Your task to perform on an android device: open app "LinkedIn" Image 0: 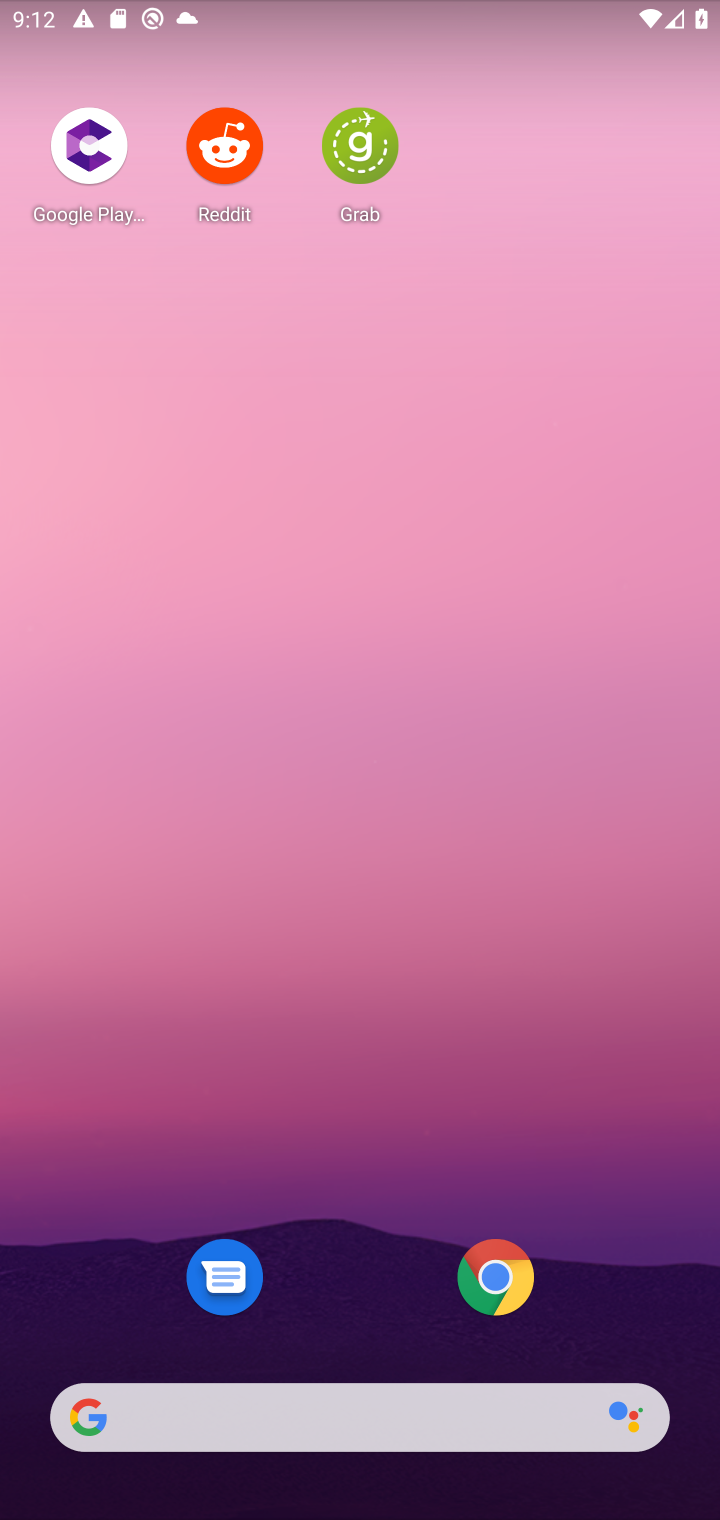
Step 0: drag from (409, 1485) to (365, 146)
Your task to perform on an android device: open app "LinkedIn" Image 1: 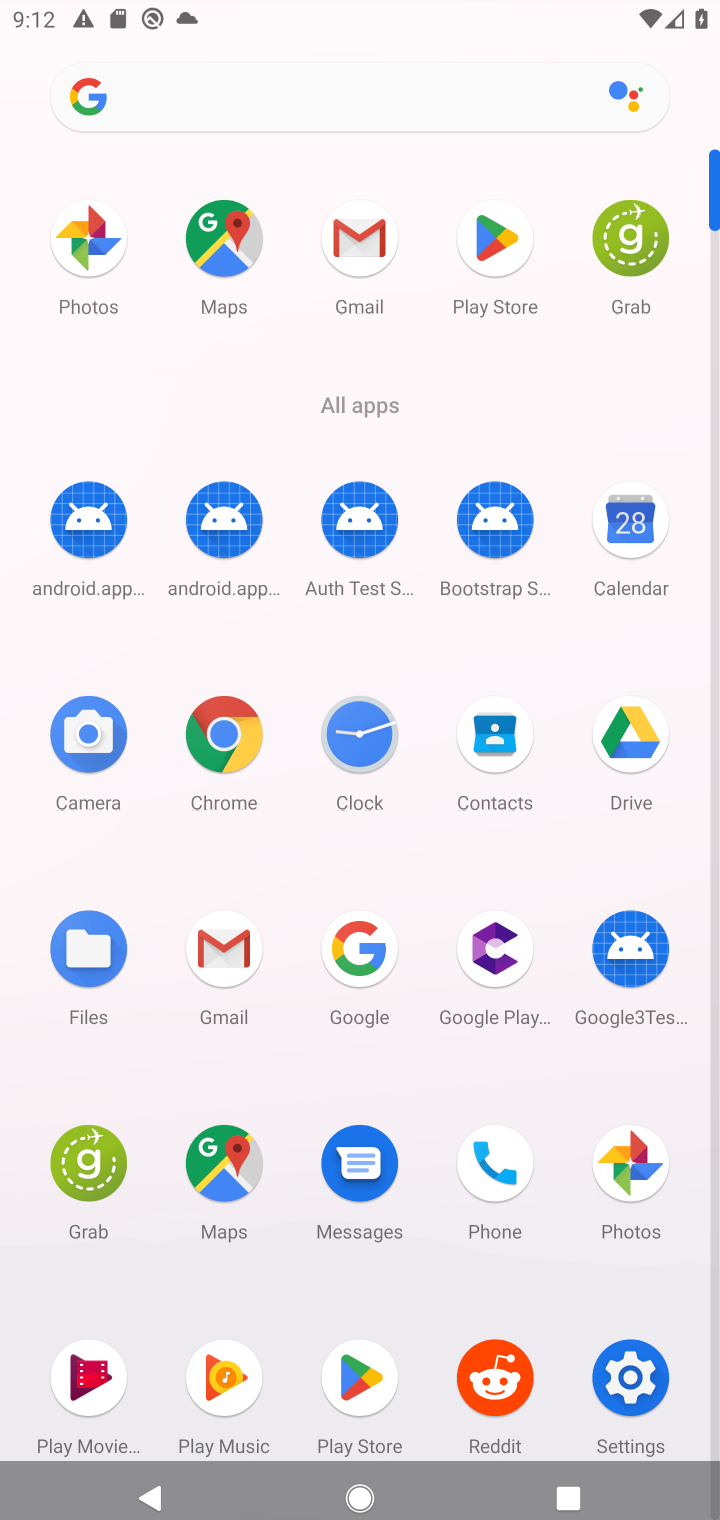
Step 1: click (350, 1377)
Your task to perform on an android device: open app "LinkedIn" Image 2: 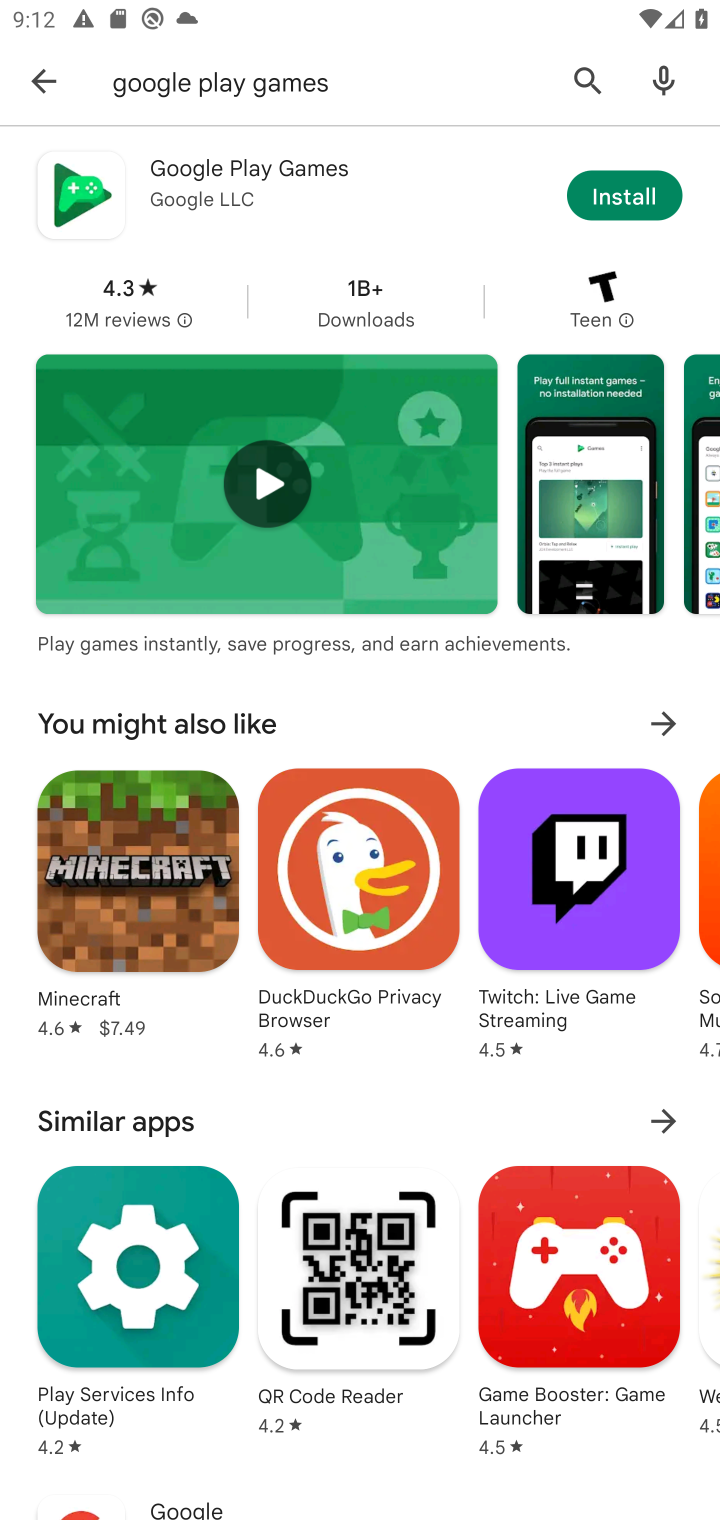
Step 2: click (583, 86)
Your task to perform on an android device: open app "LinkedIn" Image 3: 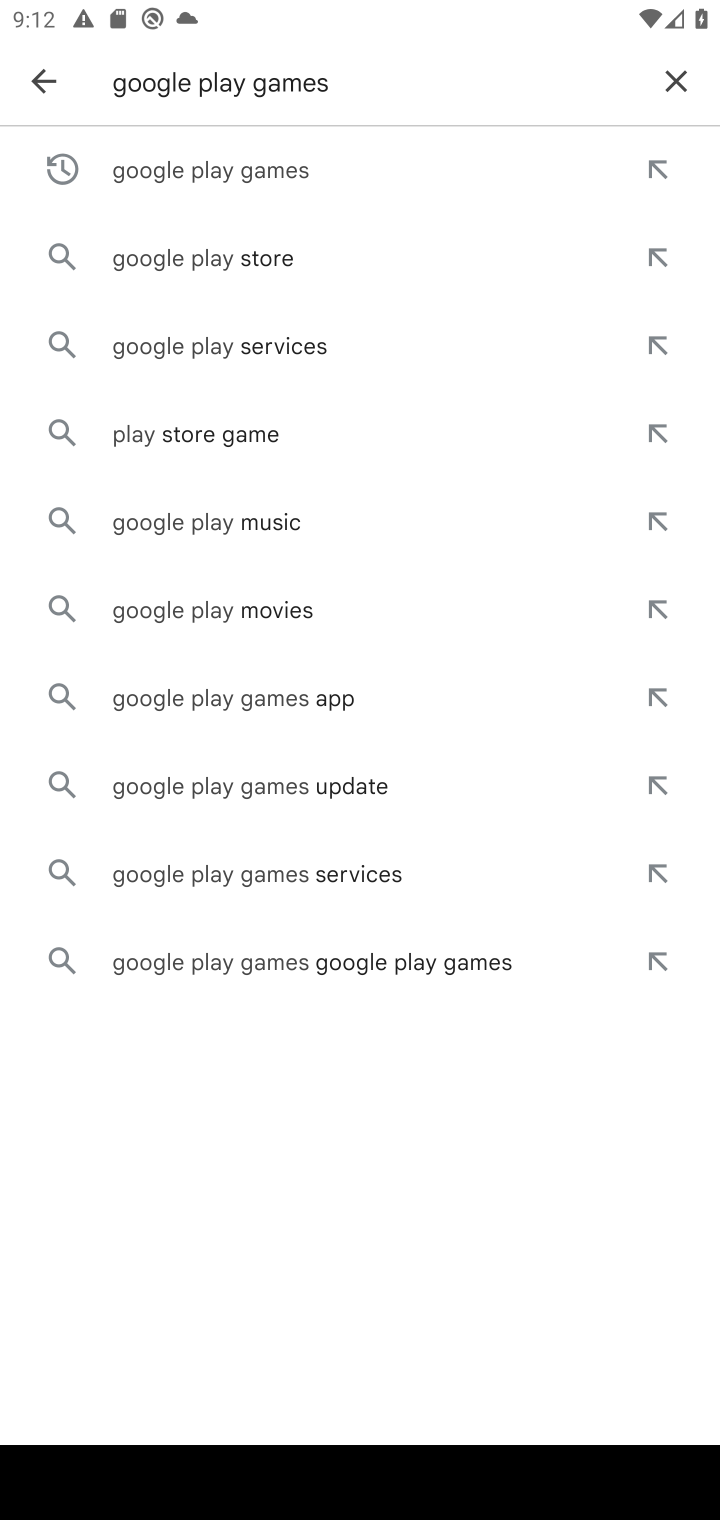
Step 3: click (680, 86)
Your task to perform on an android device: open app "LinkedIn" Image 4: 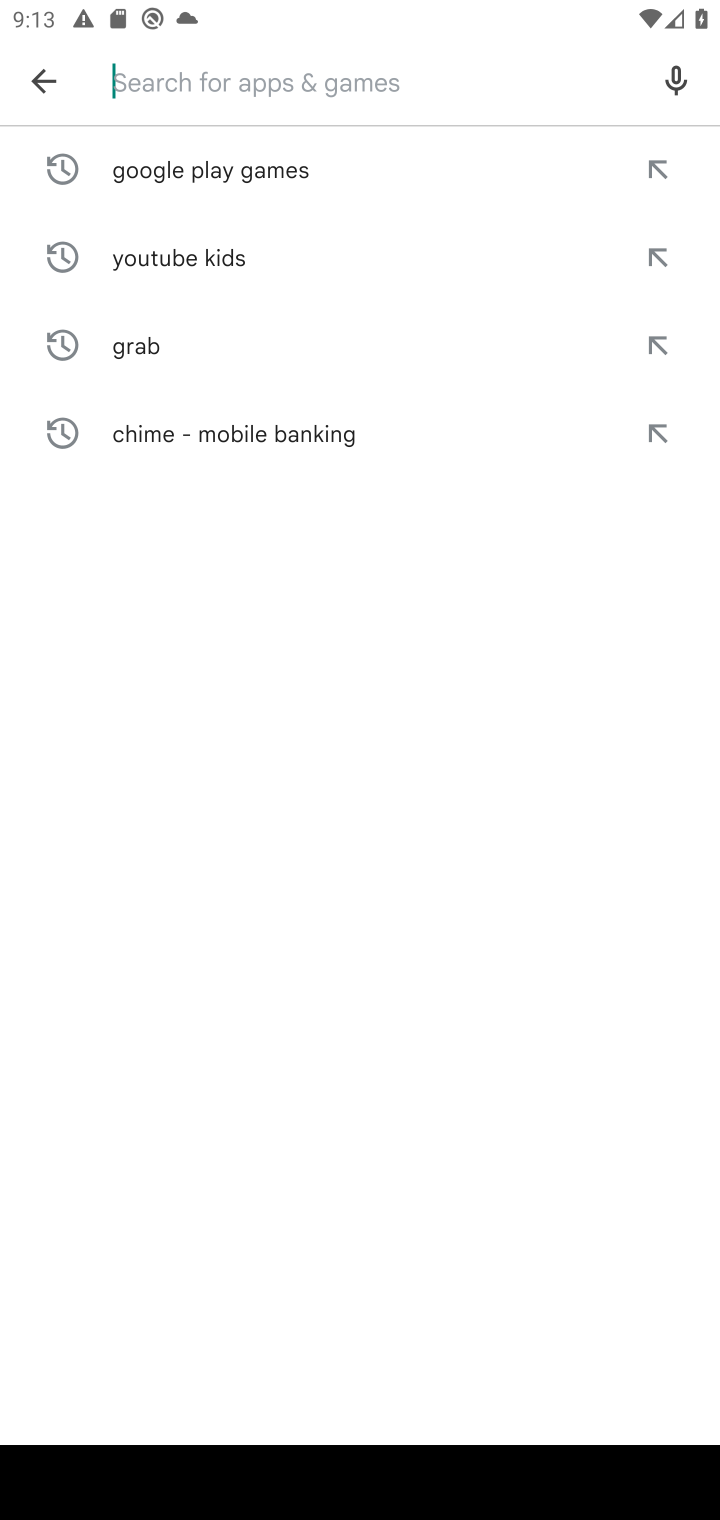
Step 4: type "Linkedin"
Your task to perform on an android device: open app "LinkedIn" Image 5: 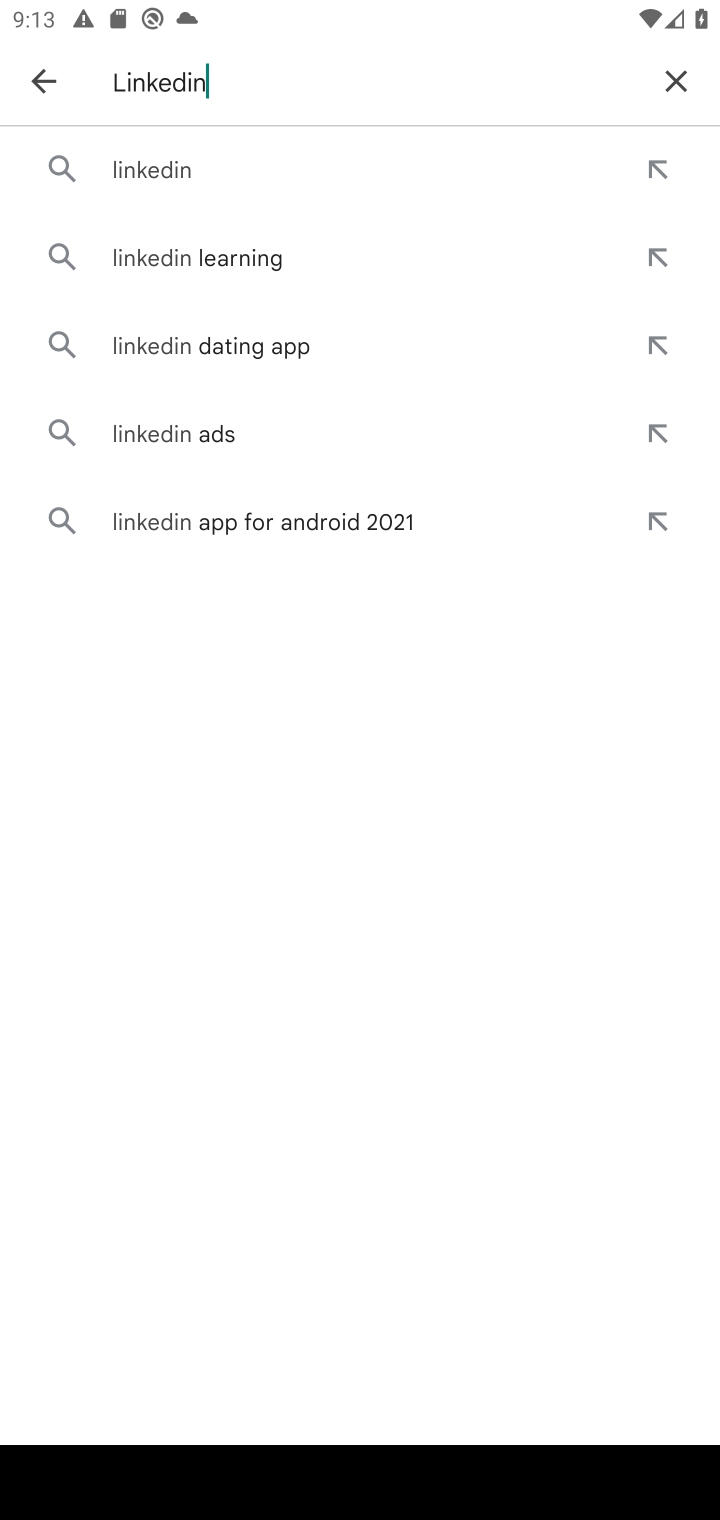
Step 5: click (162, 162)
Your task to perform on an android device: open app "LinkedIn" Image 6: 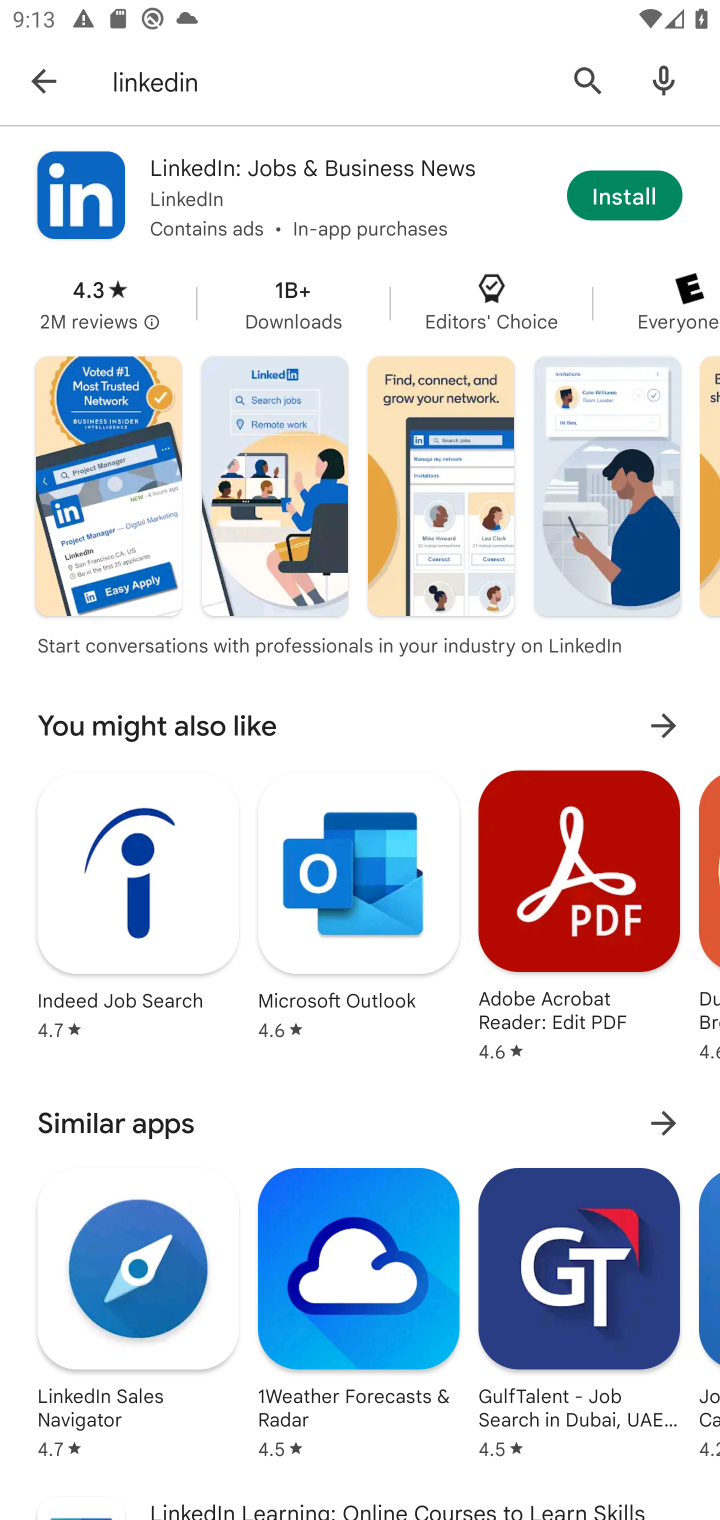
Step 6: task complete